Your task to perform on an android device: Go to Yahoo.com Image 0: 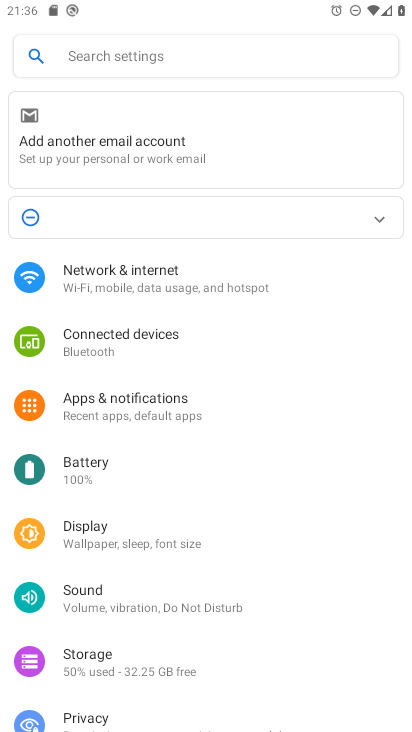
Step 0: press home button
Your task to perform on an android device: Go to Yahoo.com Image 1: 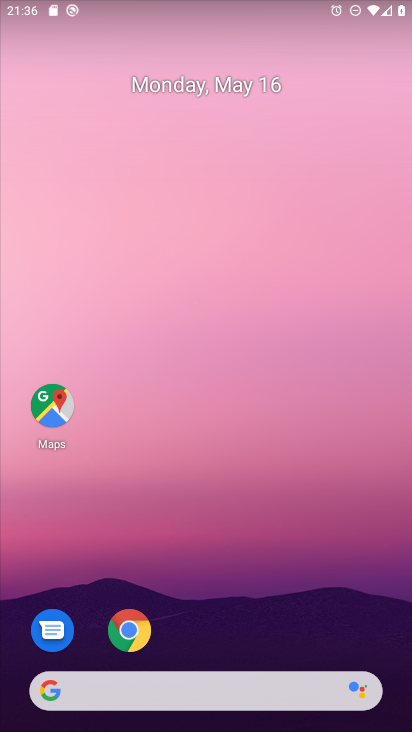
Step 1: click (125, 630)
Your task to perform on an android device: Go to Yahoo.com Image 2: 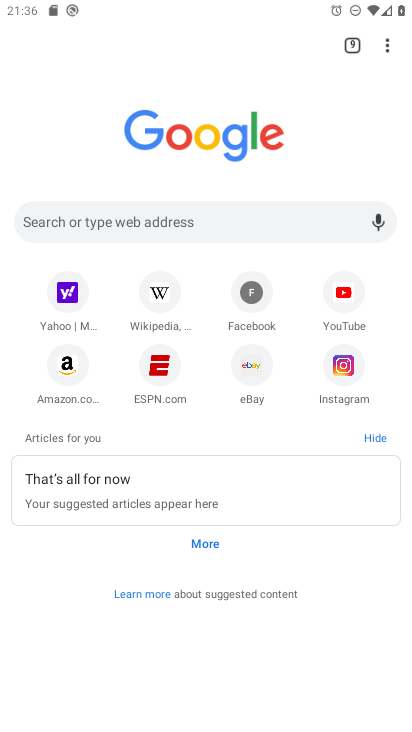
Step 2: click (348, 38)
Your task to perform on an android device: Go to Yahoo.com Image 3: 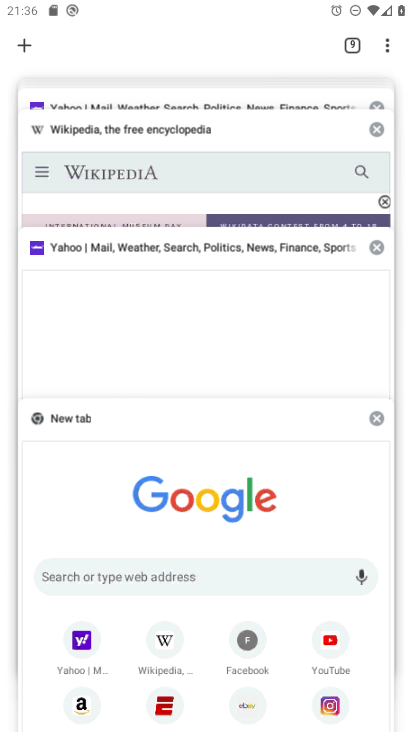
Step 3: click (225, 304)
Your task to perform on an android device: Go to Yahoo.com Image 4: 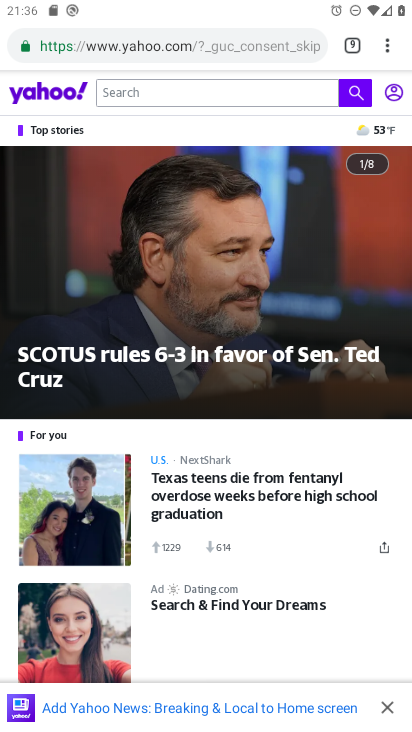
Step 4: task complete